Your task to perform on an android device: Open calendar and show me the third week of next month Image 0: 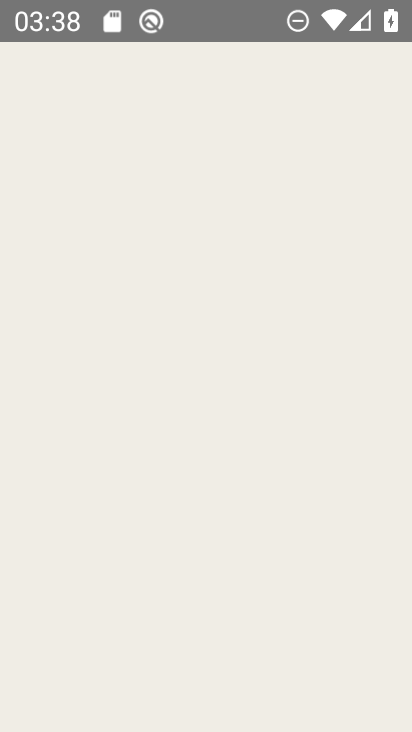
Step 0: press home button
Your task to perform on an android device: Open calendar and show me the third week of next month Image 1: 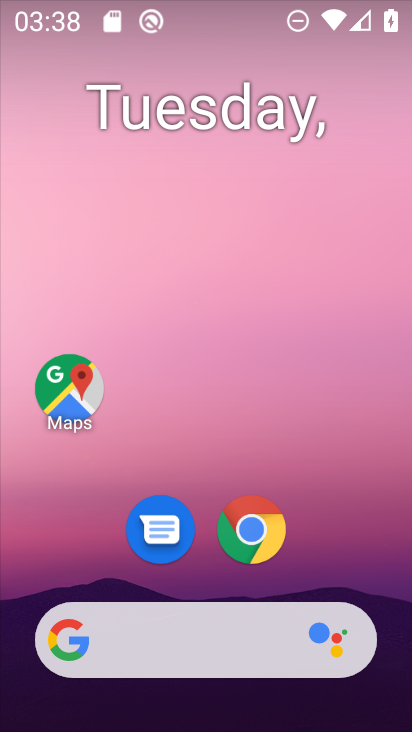
Step 1: drag from (311, 485) to (325, 153)
Your task to perform on an android device: Open calendar and show me the third week of next month Image 2: 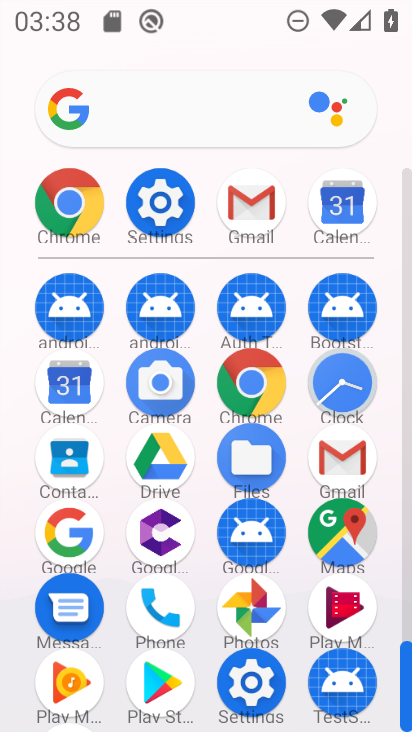
Step 2: click (81, 387)
Your task to perform on an android device: Open calendar and show me the third week of next month Image 3: 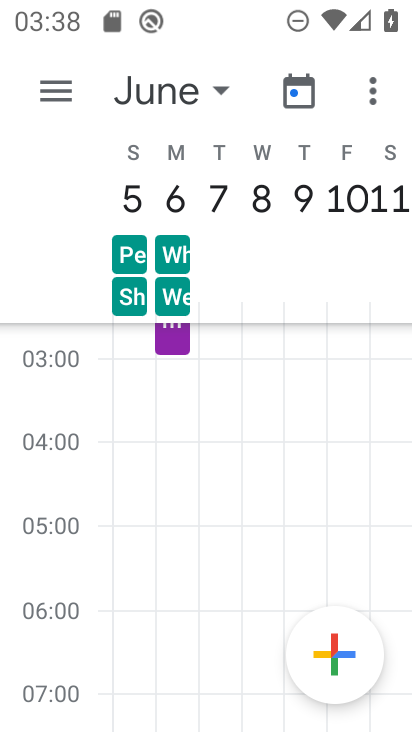
Step 3: drag from (375, 202) to (134, 219)
Your task to perform on an android device: Open calendar and show me the third week of next month Image 4: 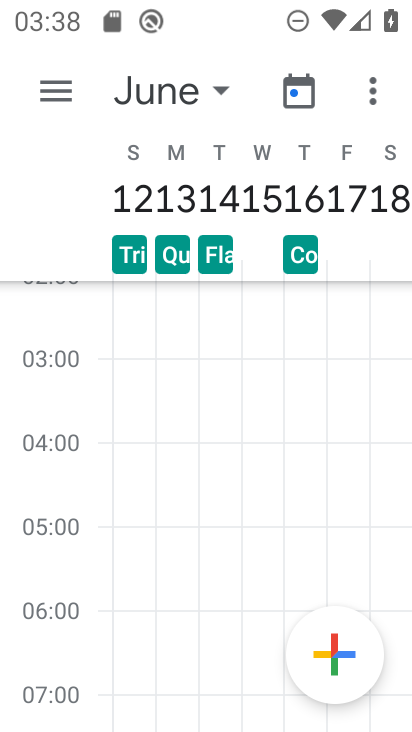
Step 4: click (57, 87)
Your task to perform on an android device: Open calendar and show me the third week of next month Image 5: 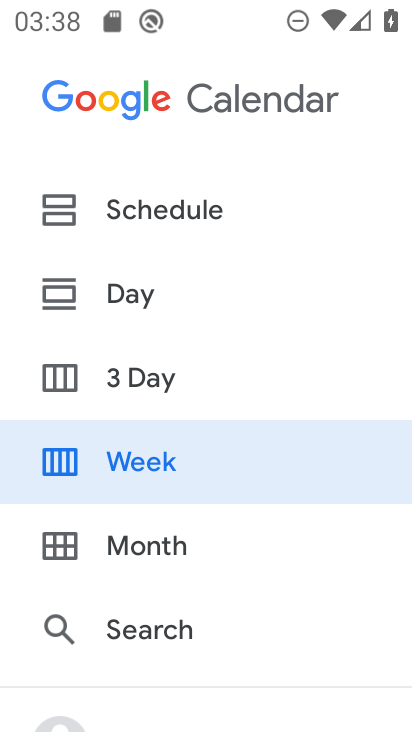
Step 5: click (203, 548)
Your task to perform on an android device: Open calendar and show me the third week of next month Image 6: 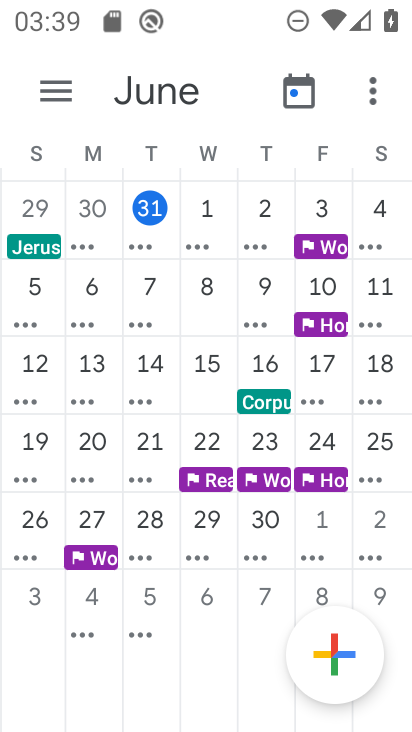
Step 6: task complete